Your task to perform on an android device: toggle show notifications on the lock screen Image 0: 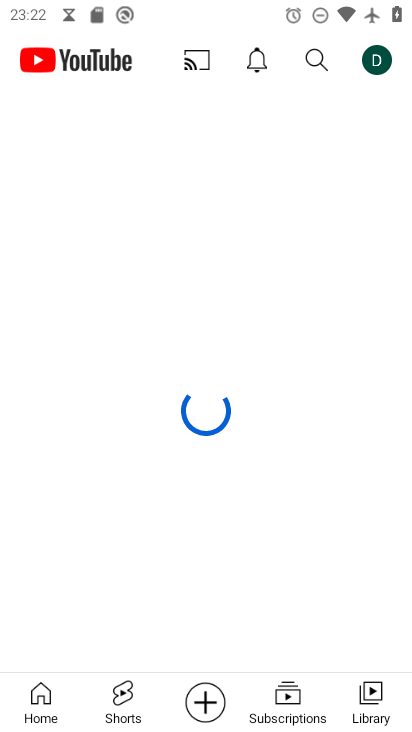
Step 0: press home button
Your task to perform on an android device: toggle show notifications on the lock screen Image 1: 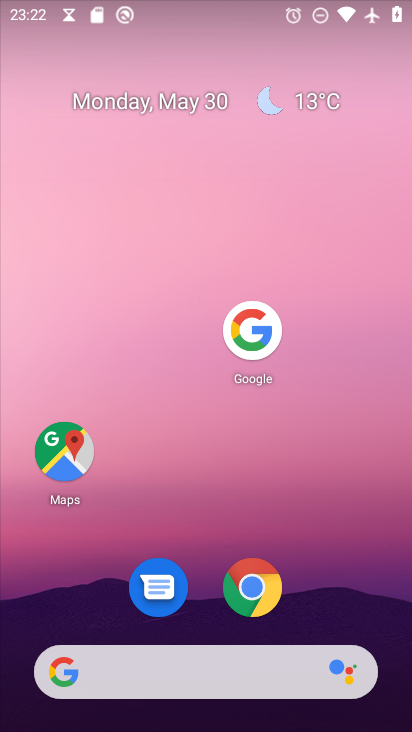
Step 1: press home button
Your task to perform on an android device: toggle show notifications on the lock screen Image 2: 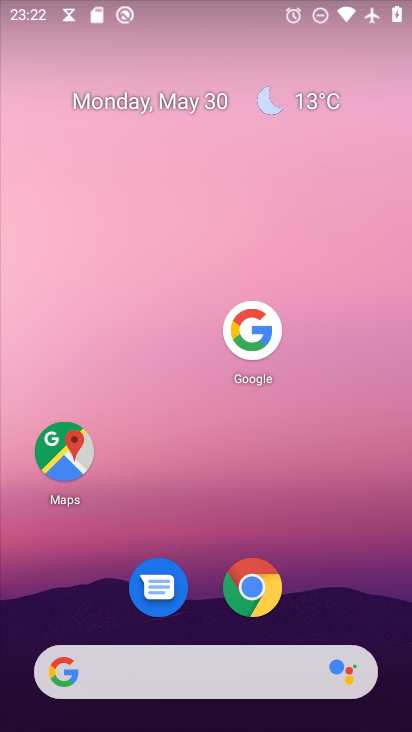
Step 2: drag from (201, 656) to (294, 222)
Your task to perform on an android device: toggle show notifications on the lock screen Image 3: 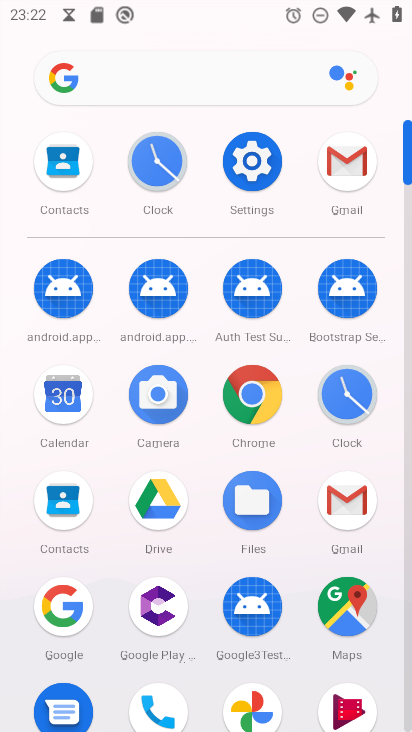
Step 3: click (256, 175)
Your task to perform on an android device: toggle show notifications on the lock screen Image 4: 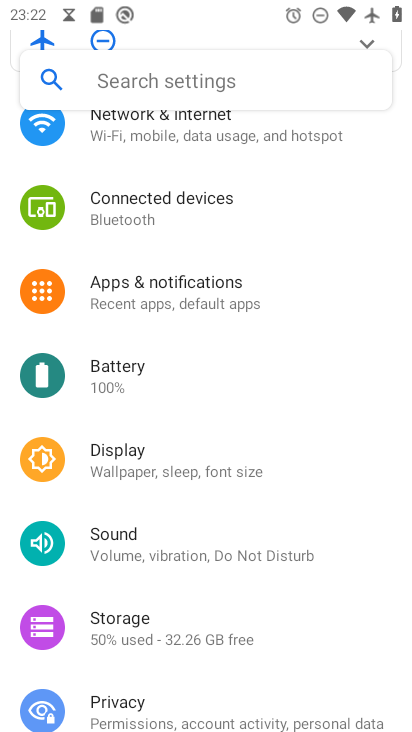
Step 4: click (213, 291)
Your task to perform on an android device: toggle show notifications on the lock screen Image 5: 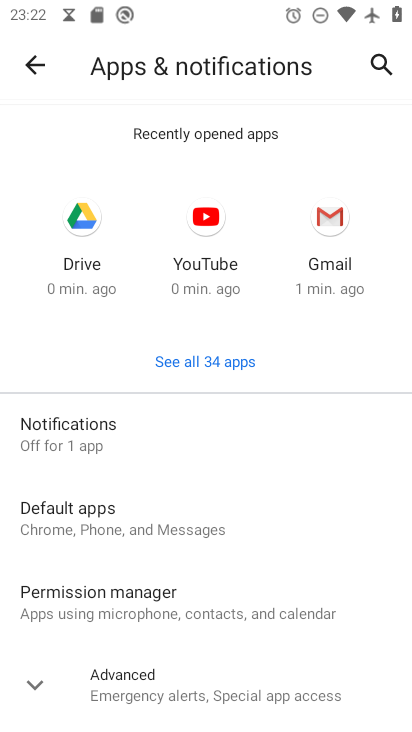
Step 5: click (82, 433)
Your task to perform on an android device: toggle show notifications on the lock screen Image 6: 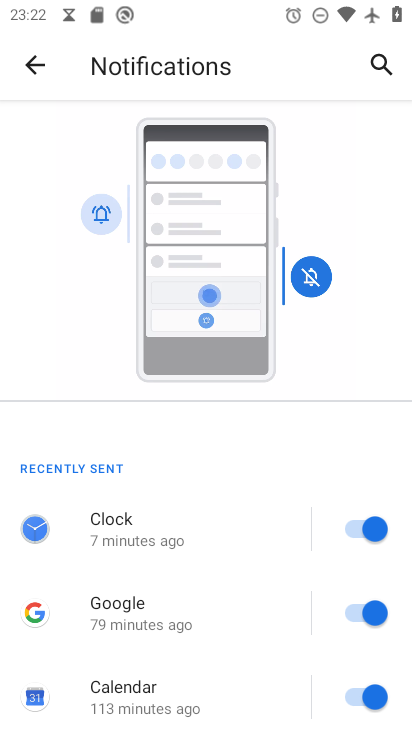
Step 6: drag from (232, 637) to (334, 137)
Your task to perform on an android device: toggle show notifications on the lock screen Image 7: 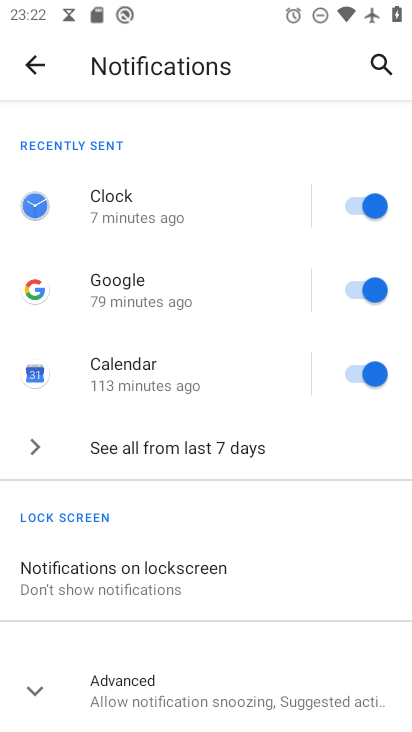
Step 7: click (169, 571)
Your task to perform on an android device: toggle show notifications on the lock screen Image 8: 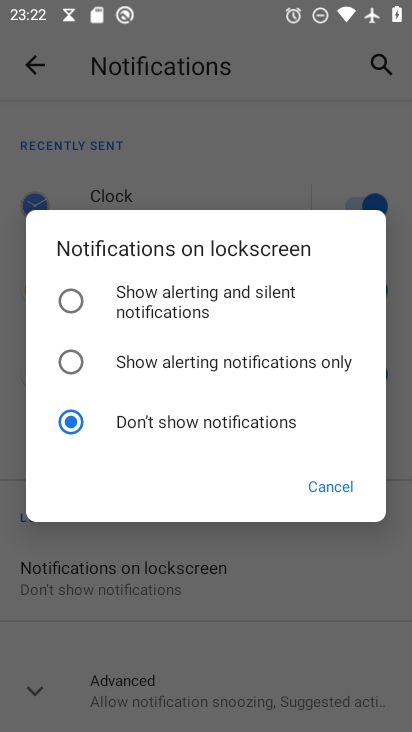
Step 8: click (72, 300)
Your task to perform on an android device: toggle show notifications on the lock screen Image 9: 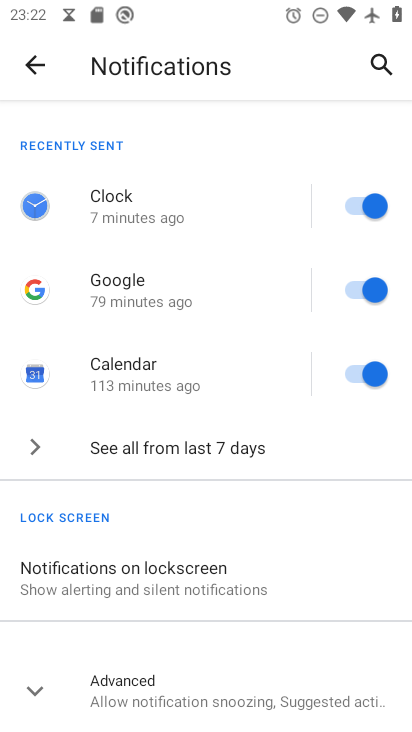
Step 9: task complete